Your task to perform on an android device: change the clock display to analog Image 0: 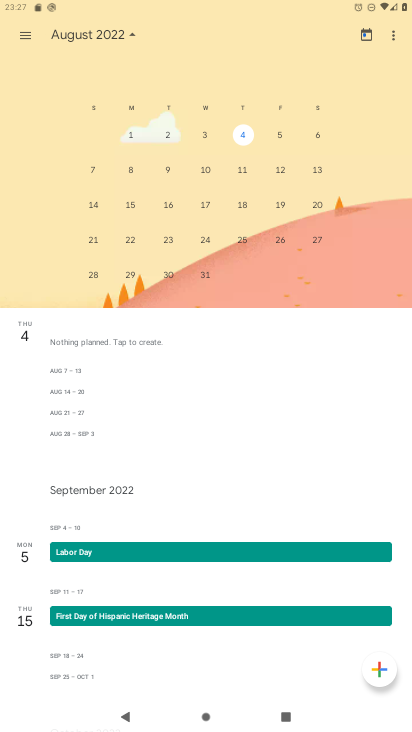
Step 0: click (98, 37)
Your task to perform on an android device: change the clock display to analog Image 1: 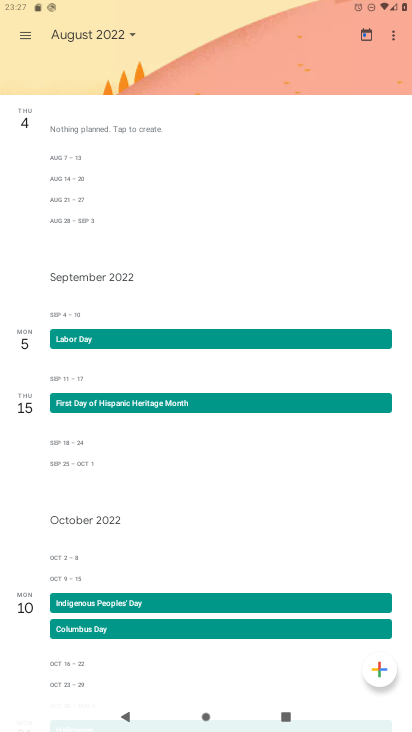
Step 1: click (368, 35)
Your task to perform on an android device: change the clock display to analog Image 2: 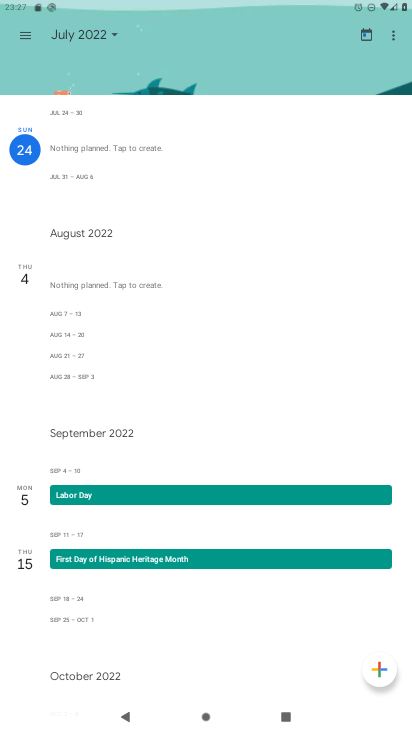
Step 2: press home button
Your task to perform on an android device: change the clock display to analog Image 3: 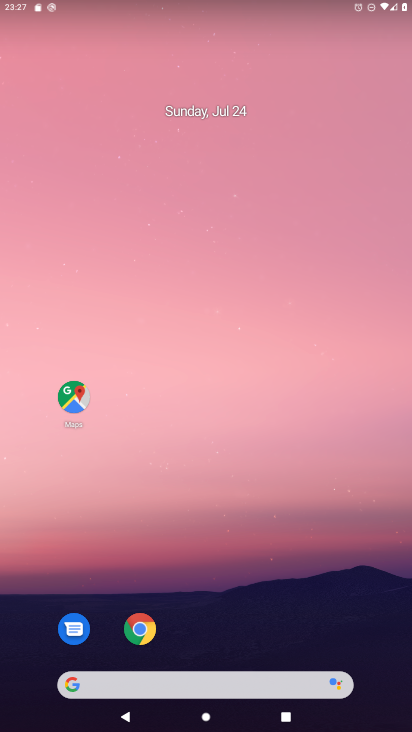
Step 3: drag from (185, 606) to (231, 109)
Your task to perform on an android device: change the clock display to analog Image 4: 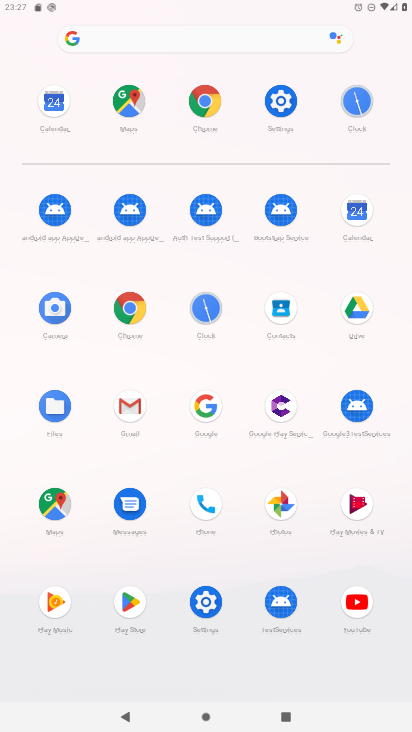
Step 4: click (352, 98)
Your task to perform on an android device: change the clock display to analog Image 5: 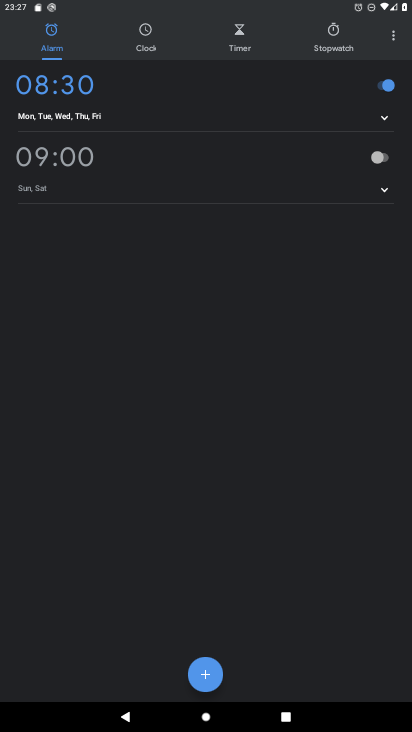
Step 5: drag from (385, 38) to (319, 68)
Your task to perform on an android device: change the clock display to analog Image 6: 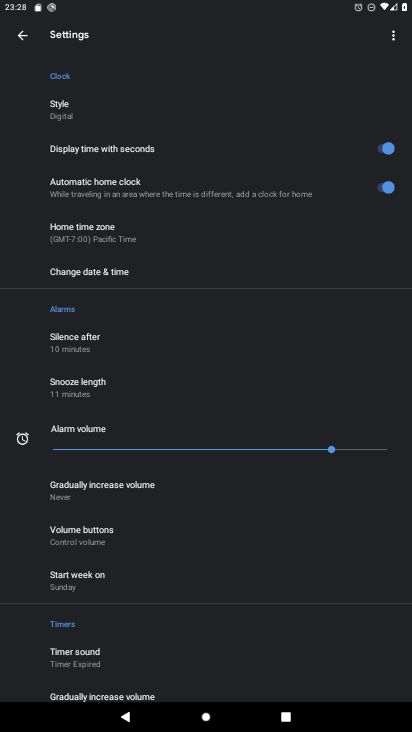
Step 6: click (81, 120)
Your task to perform on an android device: change the clock display to analog Image 7: 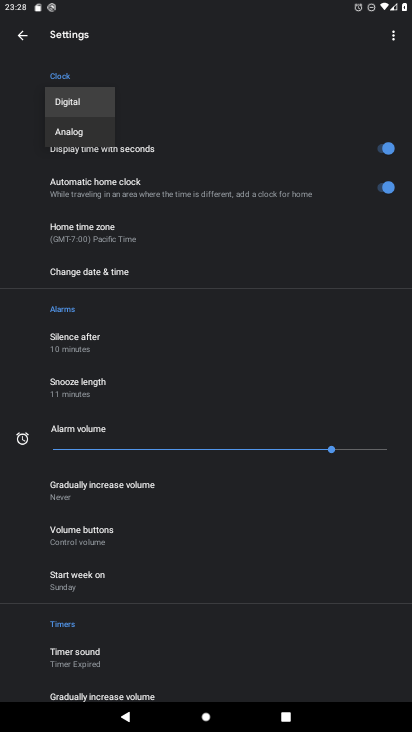
Step 7: click (84, 132)
Your task to perform on an android device: change the clock display to analog Image 8: 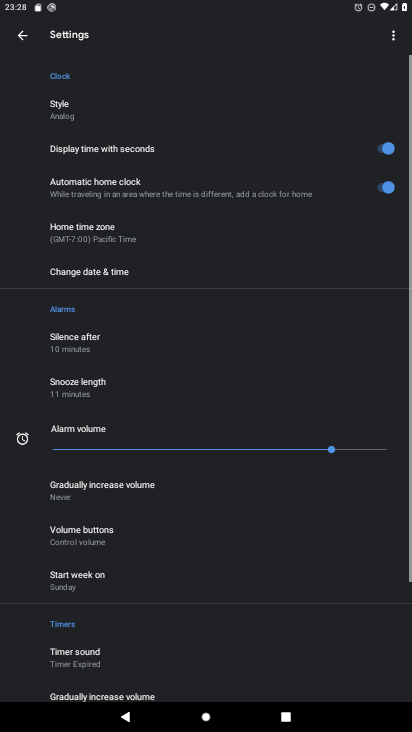
Step 8: task complete